Your task to perform on an android device: visit the assistant section in the google photos Image 0: 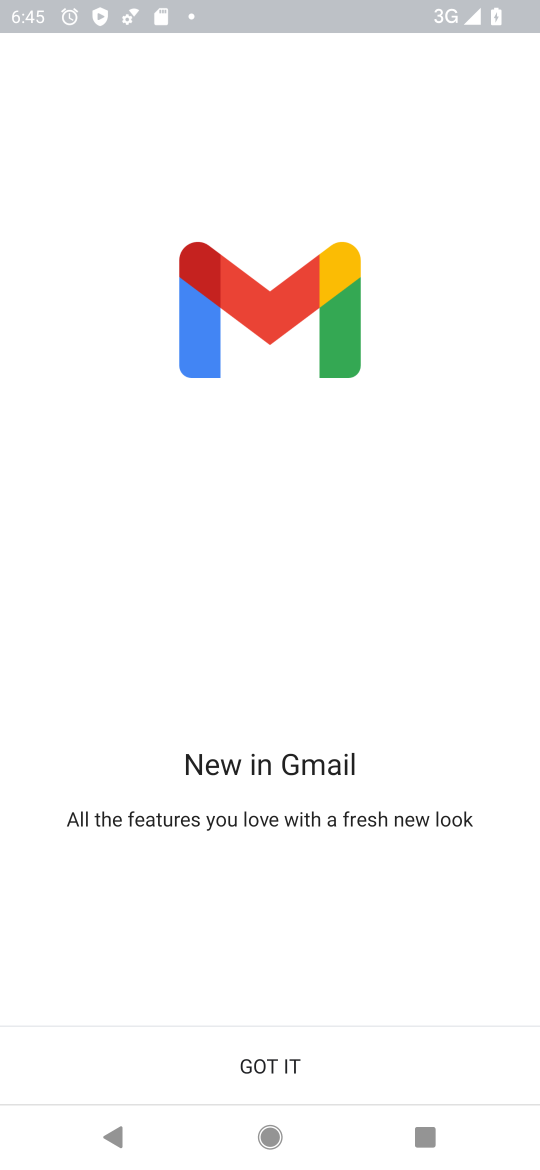
Step 0: press home button
Your task to perform on an android device: visit the assistant section in the google photos Image 1: 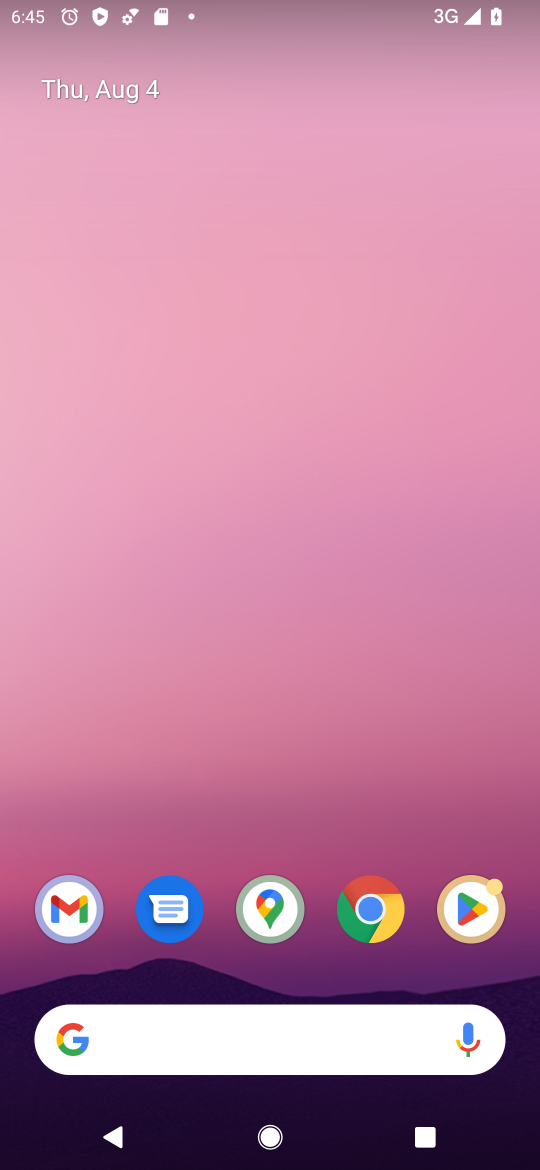
Step 1: drag from (270, 699) to (328, 175)
Your task to perform on an android device: visit the assistant section in the google photos Image 2: 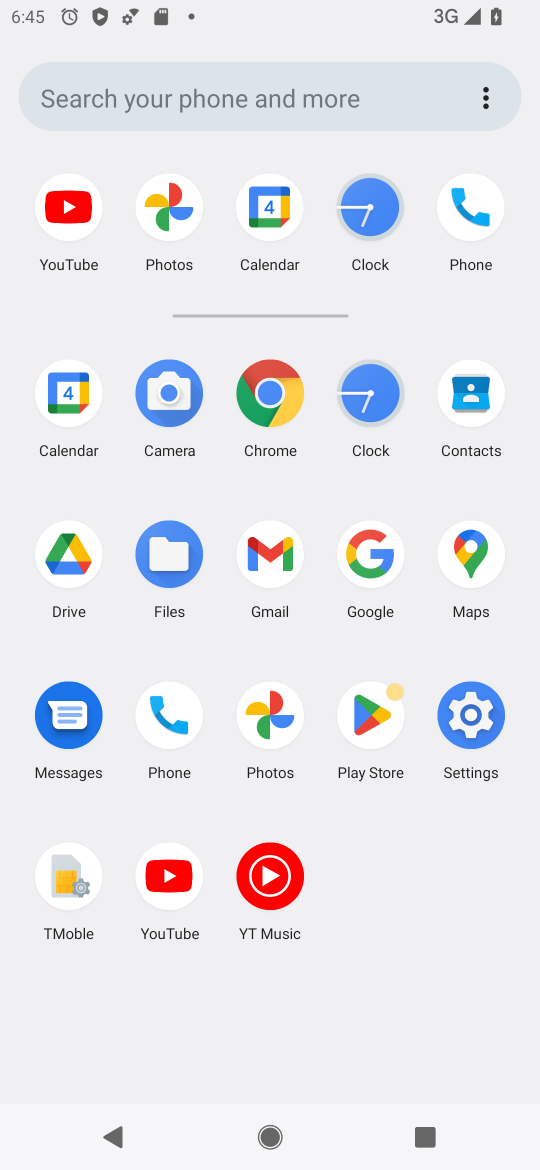
Step 2: click (268, 730)
Your task to perform on an android device: visit the assistant section in the google photos Image 3: 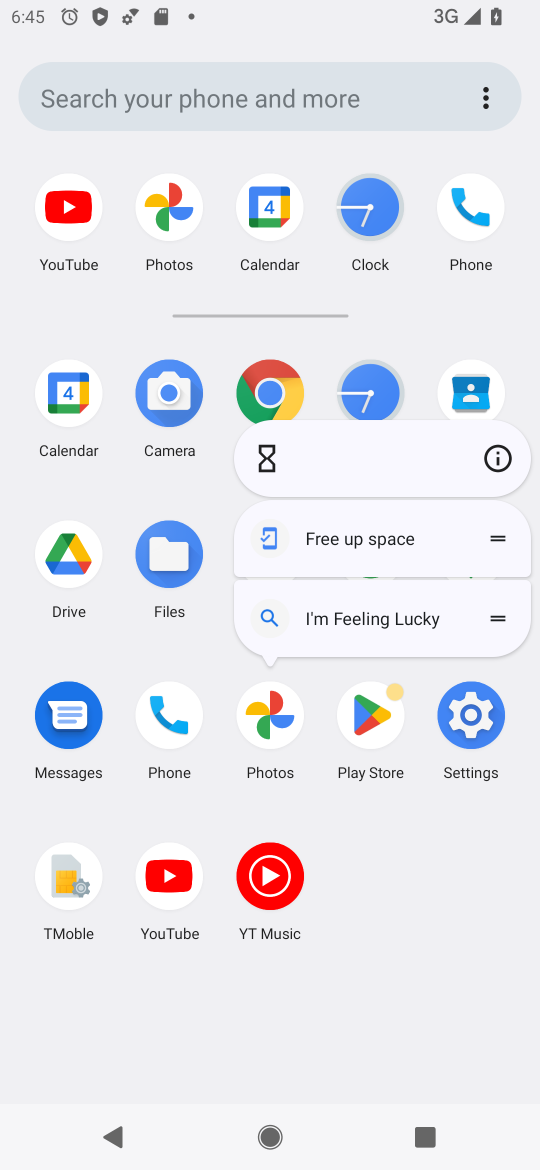
Step 3: click (268, 730)
Your task to perform on an android device: visit the assistant section in the google photos Image 4: 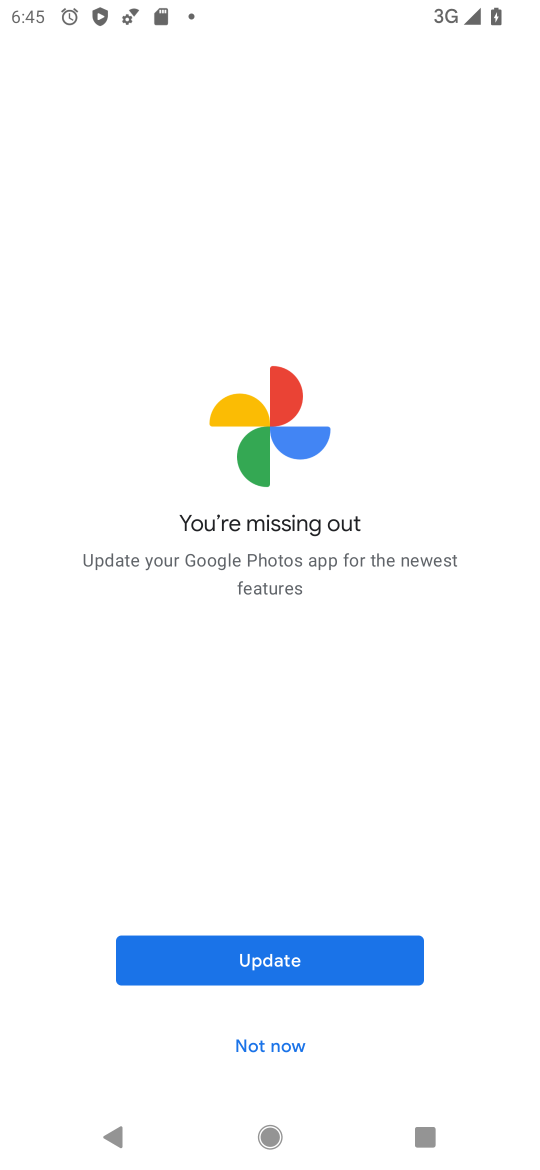
Step 4: click (244, 979)
Your task to perform on an android device: visit the assistant section in the google photos Image 5: 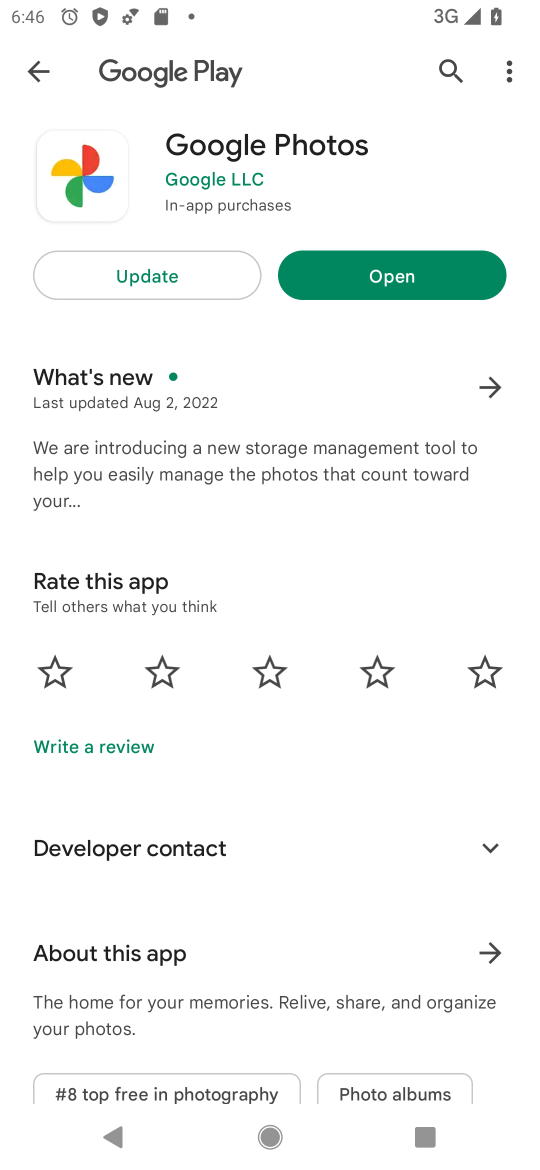
Step 5: click (98, 270)
Your task to perform on an android device: visit the assistant section in the google photos Image 6: 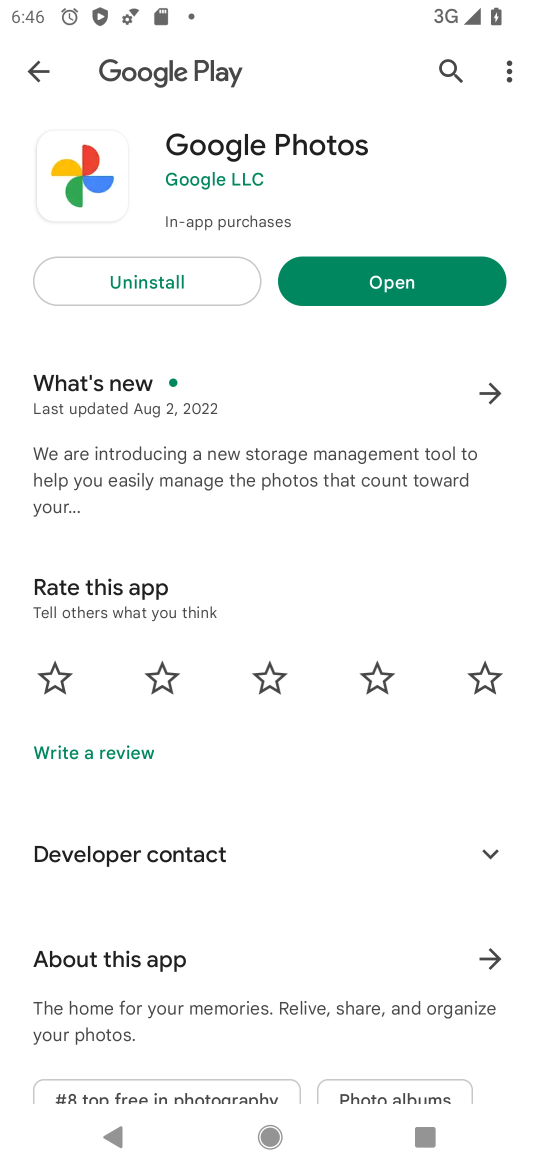
Step 6: click (395, 289)
Your task to perform on an android device: visit the assistant section in the google photos Image 7: 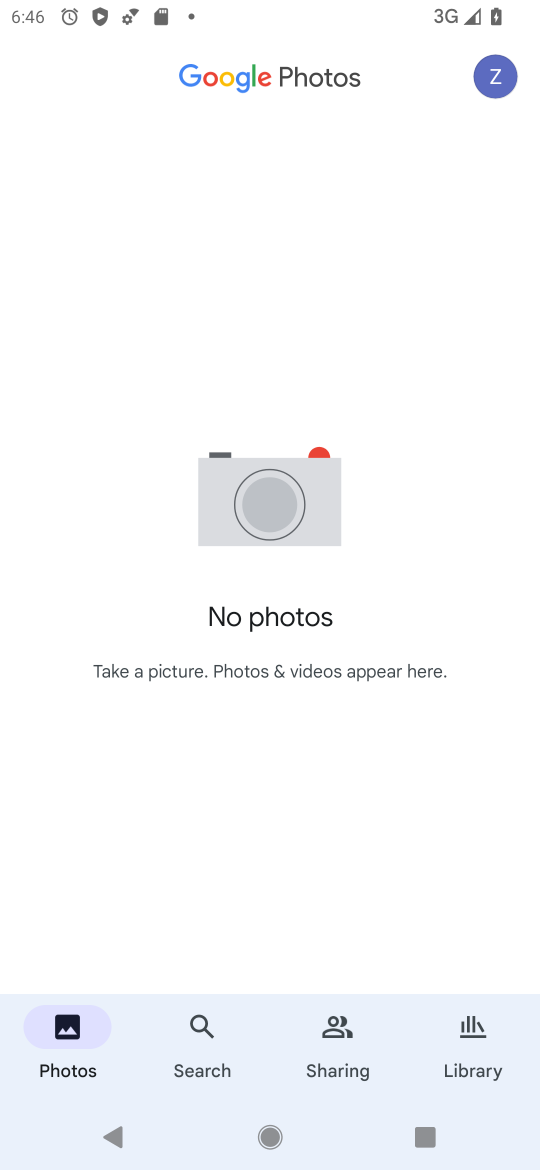
Step 7: task complete